Your task to perform on an android device: check storage Image 0: 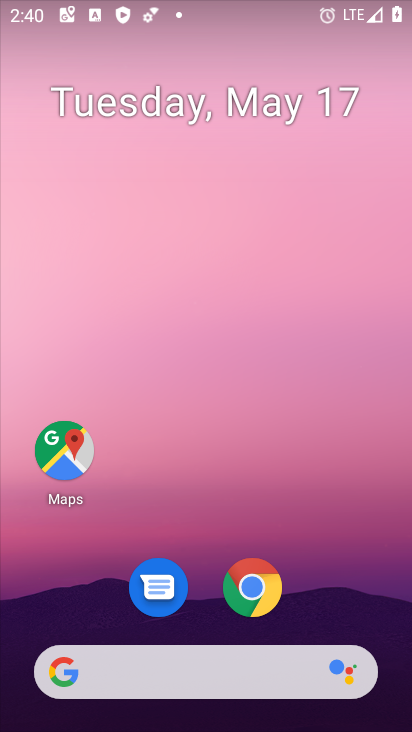
Step 0: drag from (199, 596) to (207, 116)
Your task to perform on an android device: check storage Image 1: 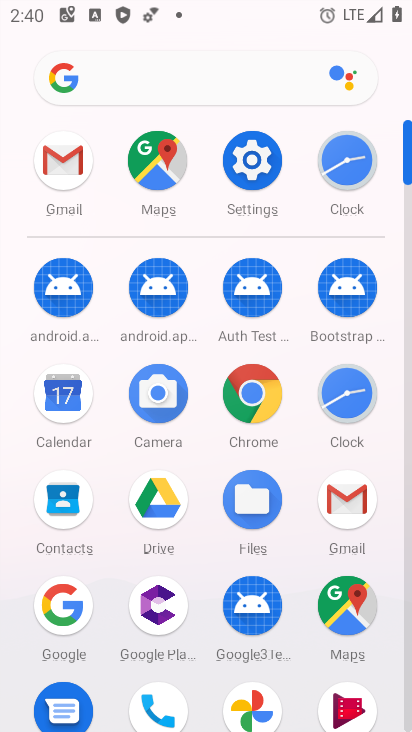
Step 1: click (248, 150)
Your task to perform on an android device: check storage Image 2: 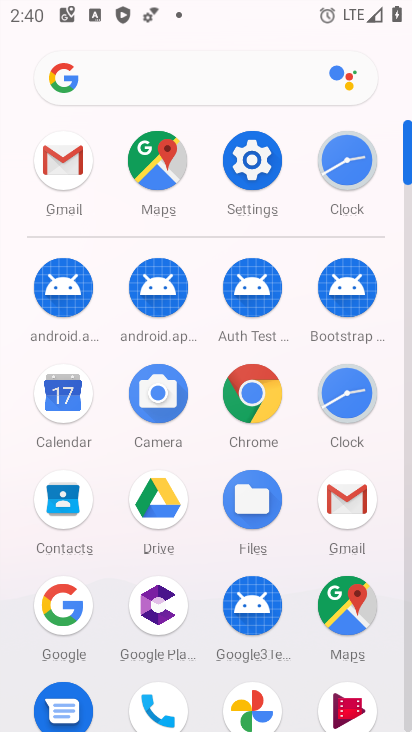
Step 2: click (248, 150)
Your task to perform on an android device: check storage Image 3: 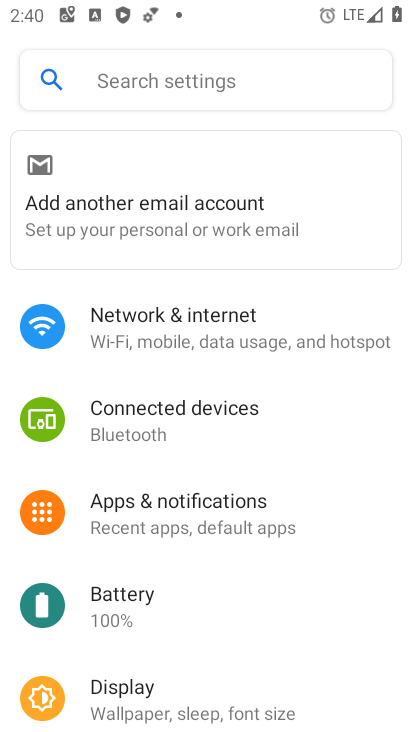
Step 3: drag from (234, 520) to (254, 165)
Your task to perform on an android device: check storage Image 4: 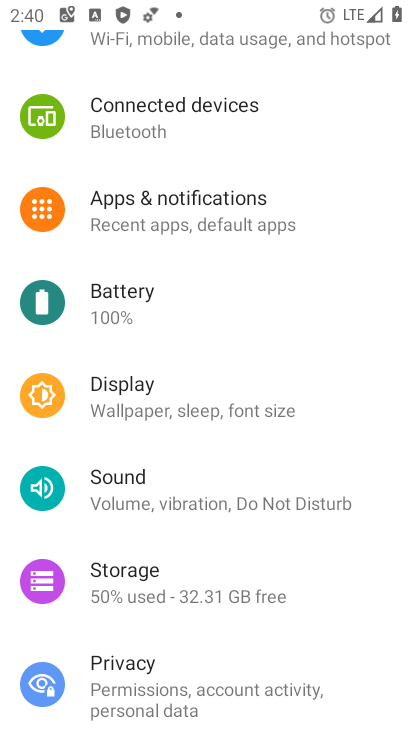
Step 4: click (138, 585)
Your task to perform on an android device: check storage Image 5: 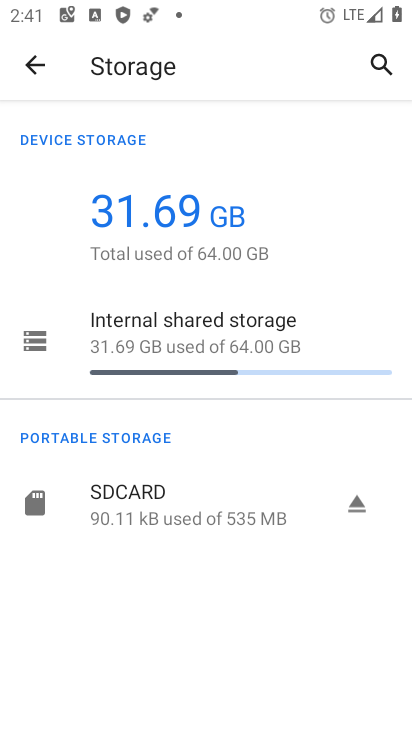
Step 5: task complete